Your task to perform on an android device: Go to Android settings Image 0: 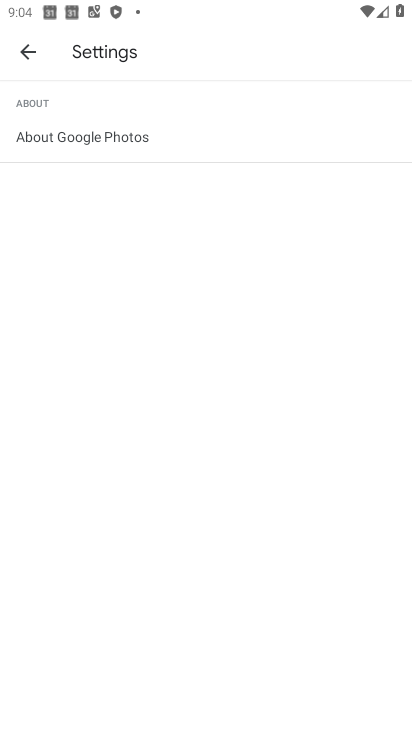
Step 0: press home button
Your task to perform on an android device: Go to Android settings Image 1: 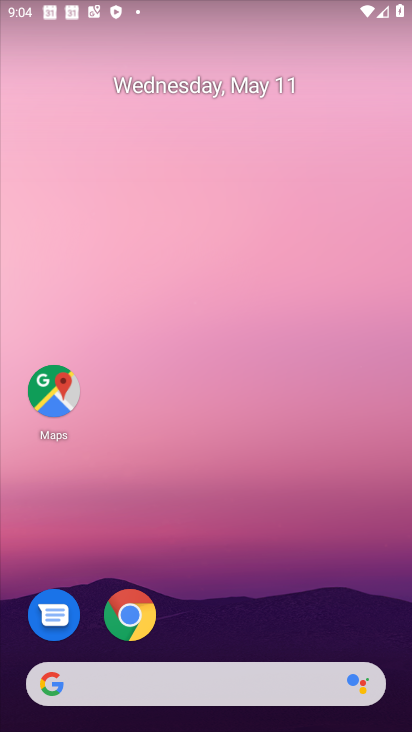
Step 1: drag from (54, 646) to (372, 243)
Your task to perform on an android device: Go to Android settings Image 2: 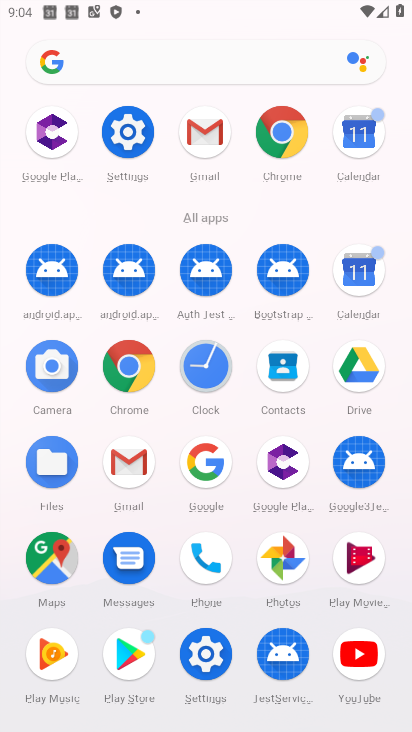
Step 2: click (121, 128)
Your task to perform on an android device: Go to Android settings Image 3: 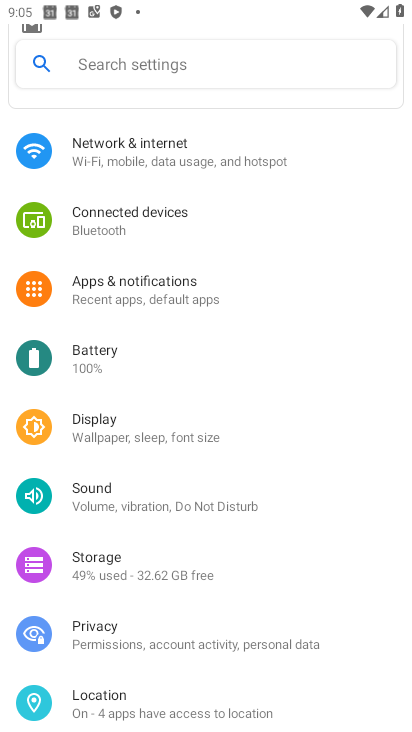
Step 3: drag from (135, 716) to (304, 124)
Your task to perform on an android device: Go to Android settings Image 4: 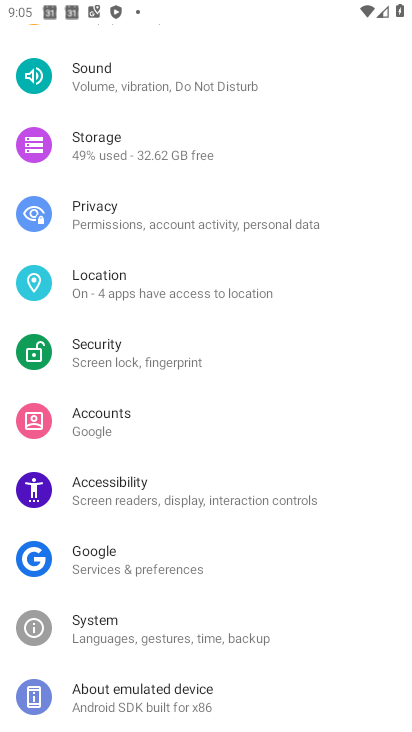
Step 4: click (122, 687)
Your task to perform on an android device: Go to Android settings Image 5: 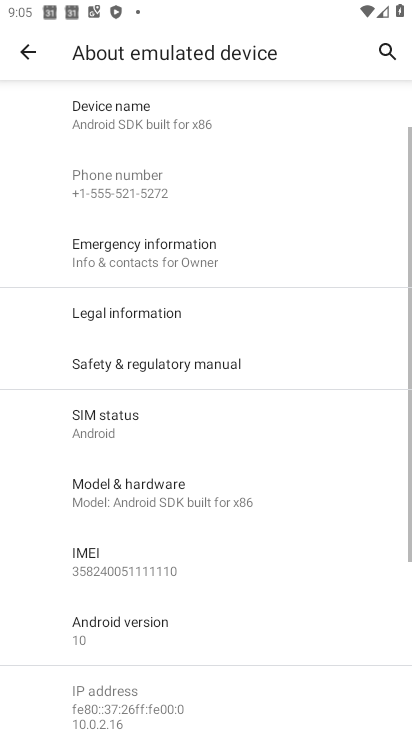
Step 5: press back button
Your task to perform on an android device: Go to Android settings Image 6: 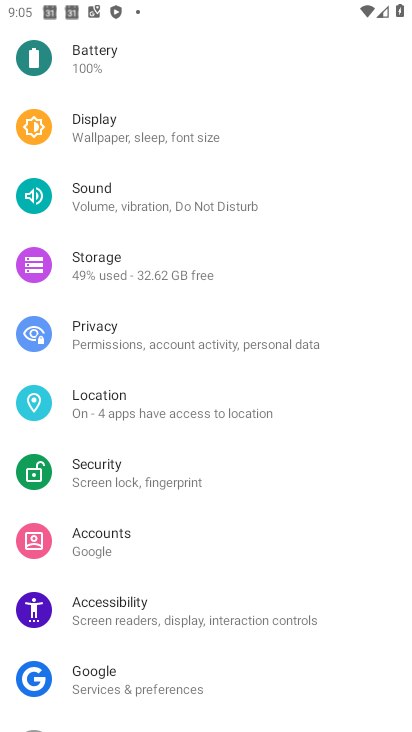
Step 6: drag from (92, 710) to (284, 207)
Your task to perform on an android device: Go to Android settings Image 7: 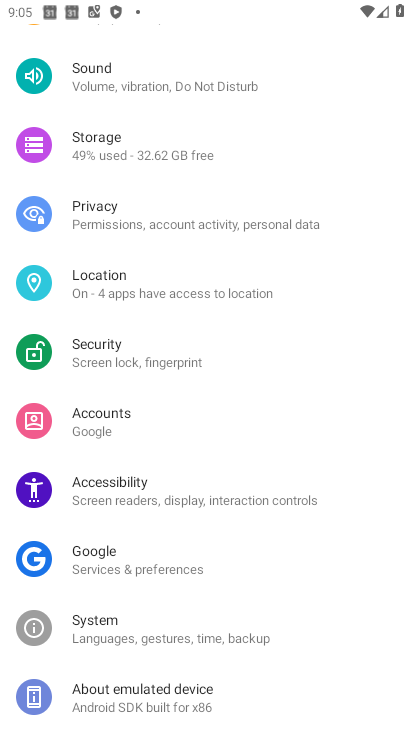
Step 7: click (100, 702)
Your task to perform on an android device: Go to Android settings Image 8: 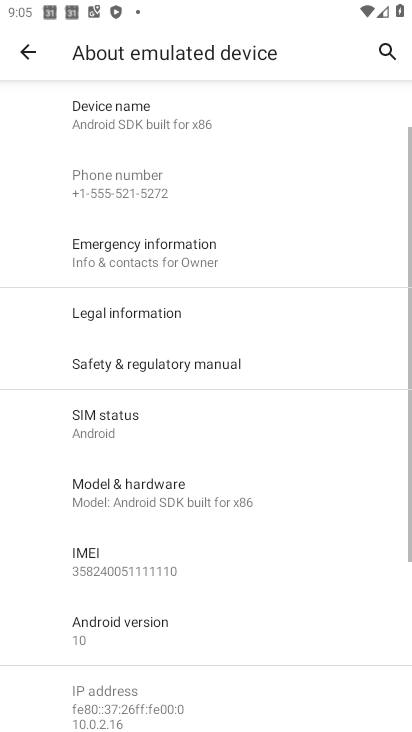
Step 8: task complete